Your task to perform on an android device: choose inbox layout in the gmail app Image 0: 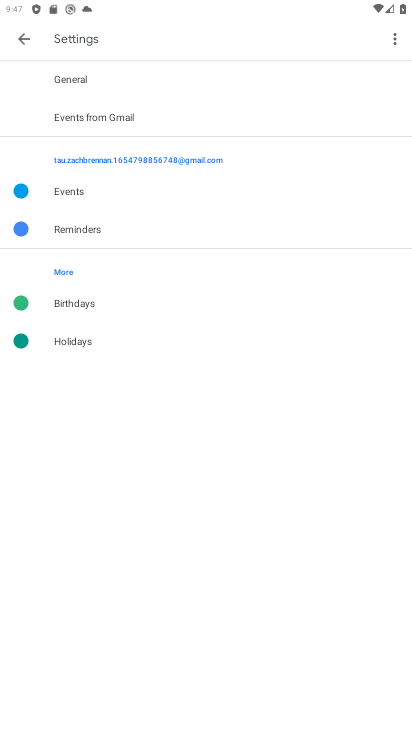
Step 0: click (61, 76)
Your task to perform on an android device: choose inbox layout in the gmail app Image 1: 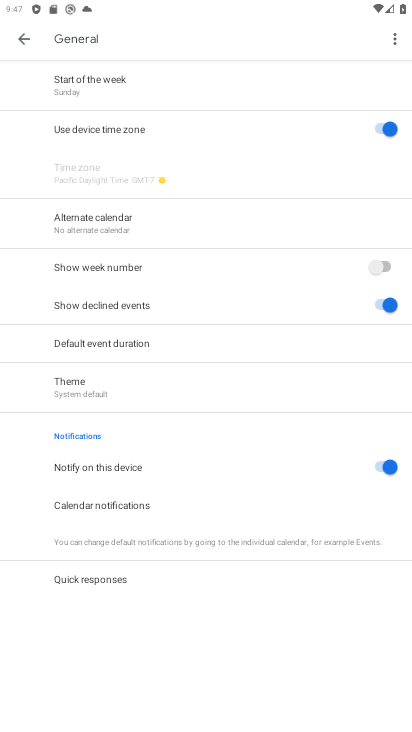
Step 1: task complete